Your task to perform on an android device: turn on data saver in the chrome app Image 0: 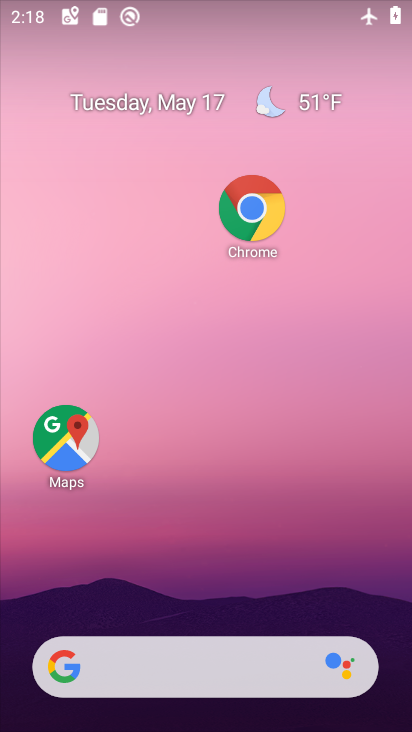
Step 0: drag from (186, 634) to (200, 17)
Your task to perform on an android device: turn on data saver in the chrome app Image 1: 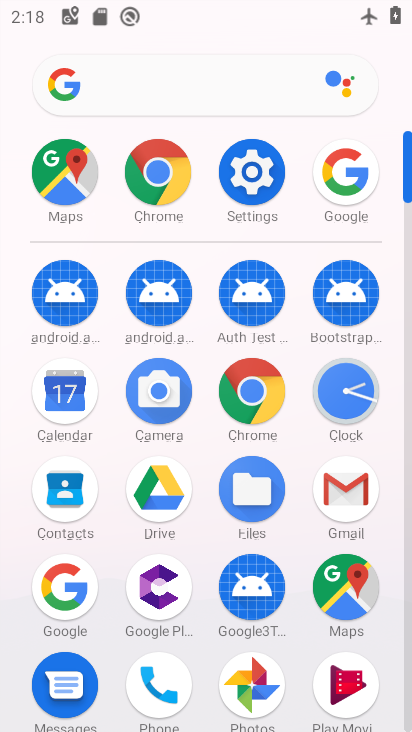
Step 1: click (165, 177)
Your task to perform on an android device: turn on data saver in the chrome app Image 2: 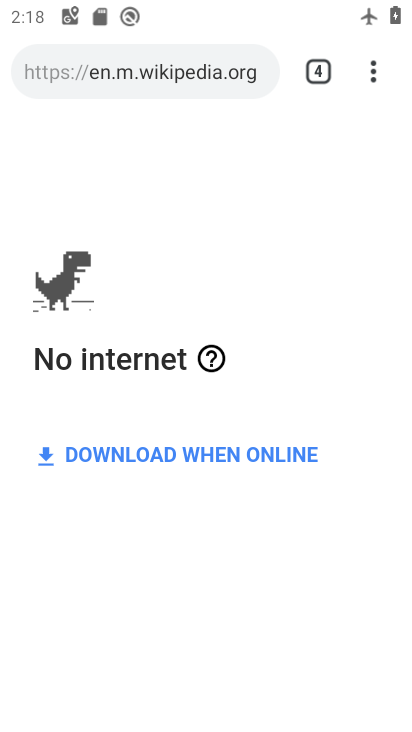
Step 2: drag from (378, 69) to (126, 553)
Your task to perform on an android device: turn on data saver in the chrome app Image 3: 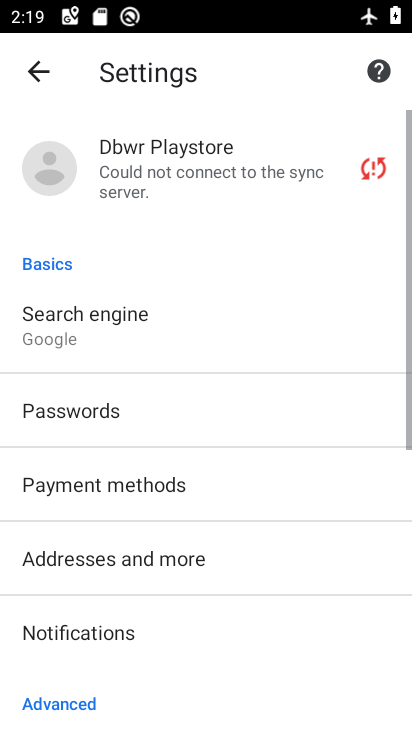
Step 3: drag from (126, 551) to (122, 180)
Your task to perform on an android device: turn on data saver in the chrome app Image 4: 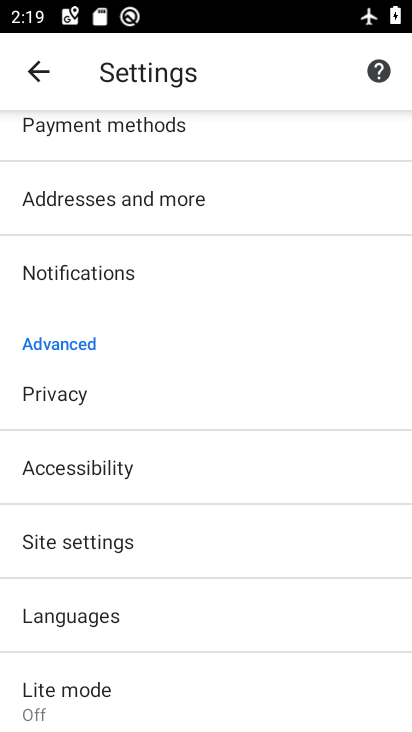
Step 4: click (106, 711)
Your task to perform on an android device: turn on data saver in the chrome app Image 5: 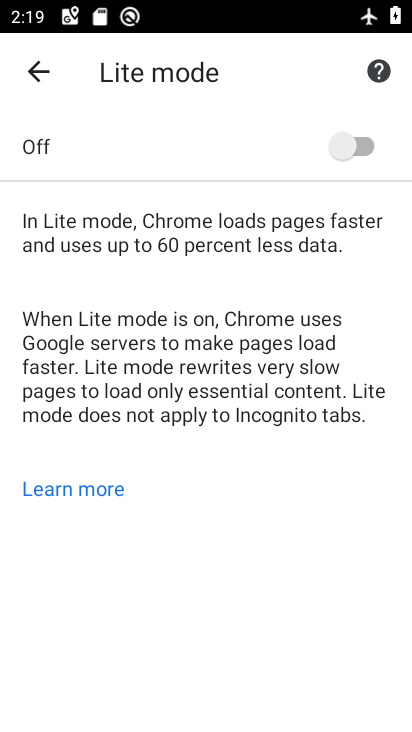
Step 5: click (340, 146)
Your task to perform on an android device: turn on data saver in the chrome app Image 6: 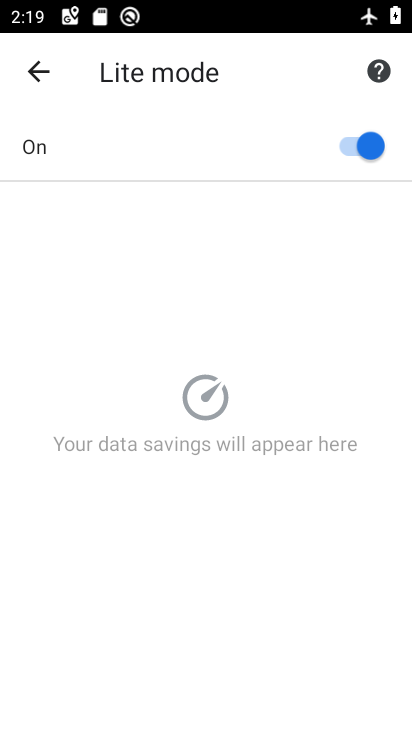
Step 6: task complete